Your task to perform on an android device: Go to CNN.com Image 0: 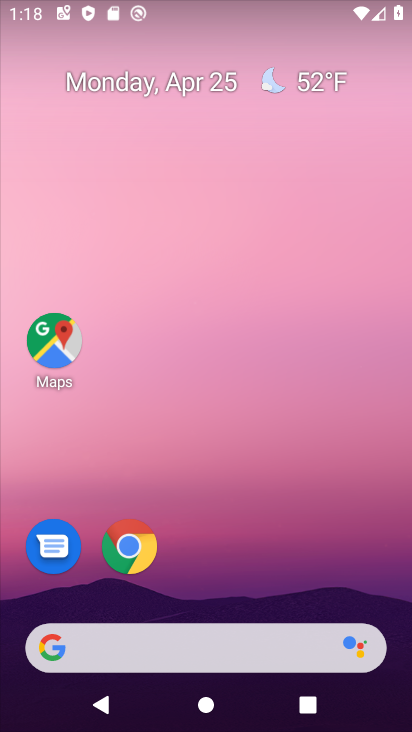
Step 0: click (129, 561)
Your task to perform on an android device: Go to CNN.com Image 1: 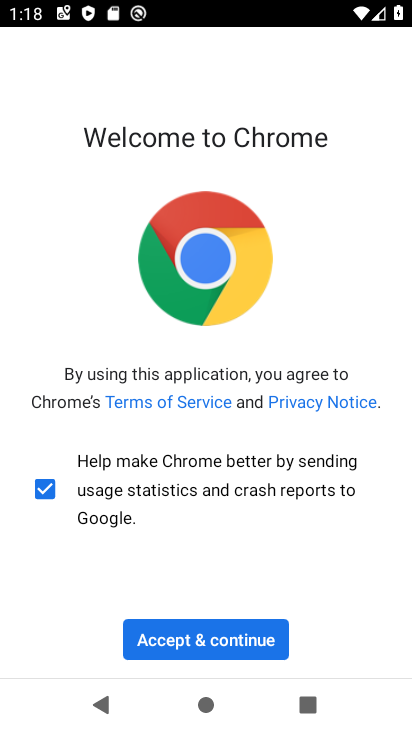
Step 1: click (222, 628)
Your task to perform on an android device: Go to CNN.com Image 2: 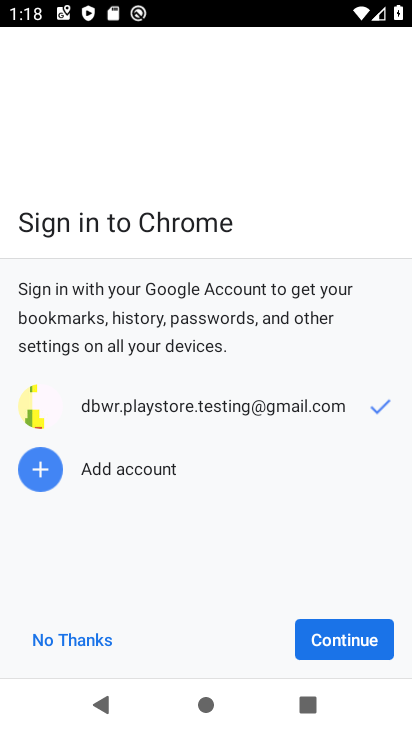
Step 2: click (341, 652)
Your task to perform on an android device: Go to CNN.com Image 3: 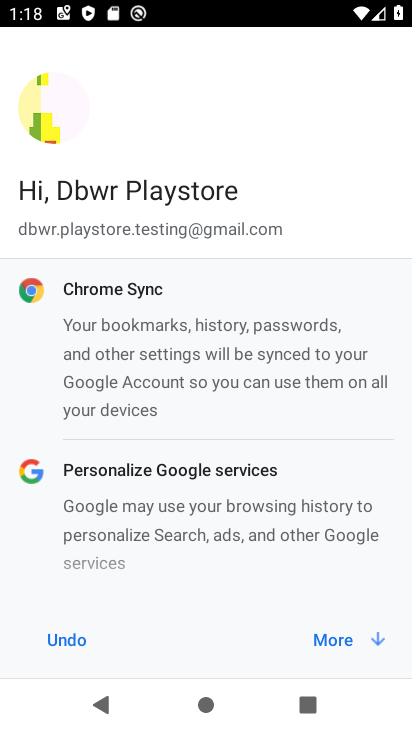
Step 3: click (341, 652)
Your task to perform on an android device: Go to CNN.com Image 4: 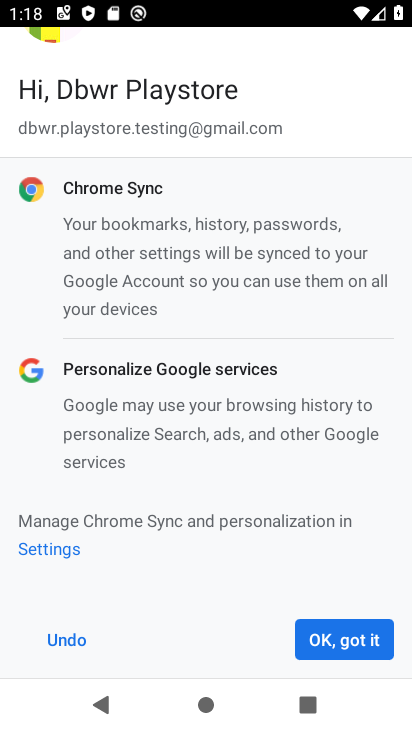
Step 4: click (341, 652)
Your task to perform on an android device: Go to CNN.com Image 5: 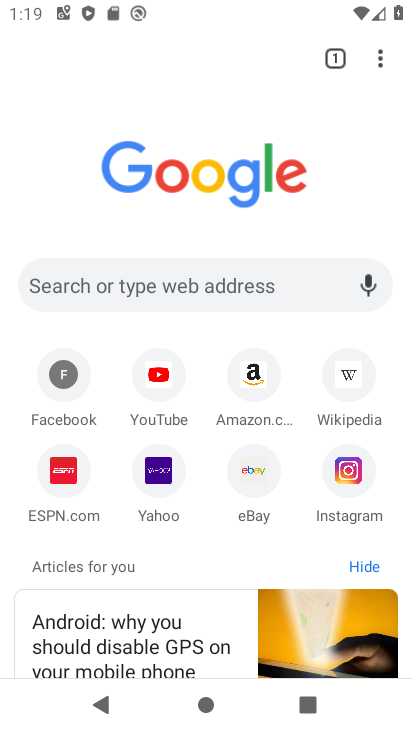
Step 5: click (228, 285)
Your task to perform on an android device: Go to CNN.com Image 6: 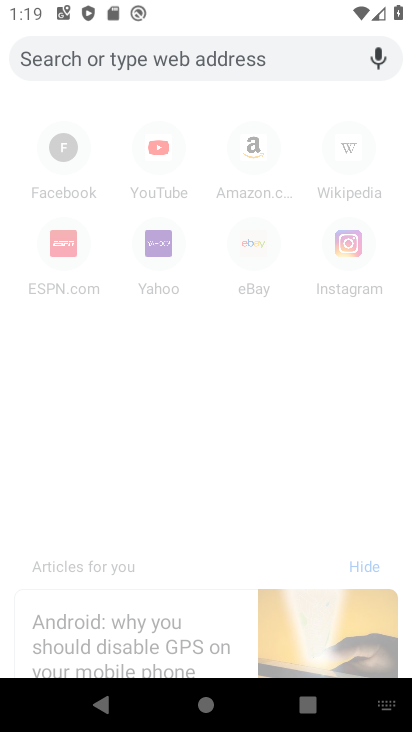
Step 6: type "cnn.com"
Your task to perform on an android device: Go to CNN.com Image 7: 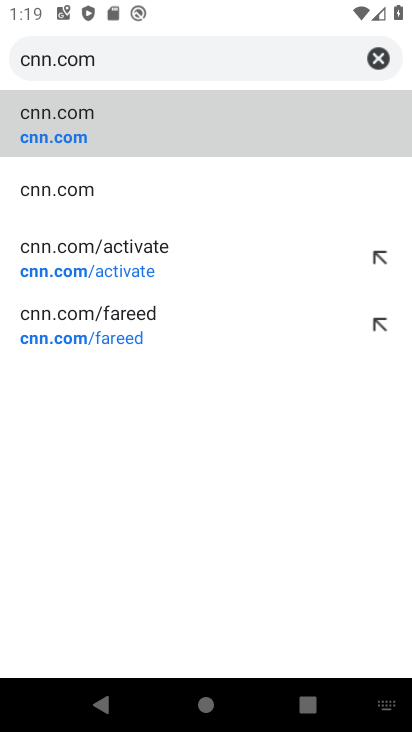
Step 7: click (116, 110)
Your task to perform on an android device: Go to CNN.com Image 8: 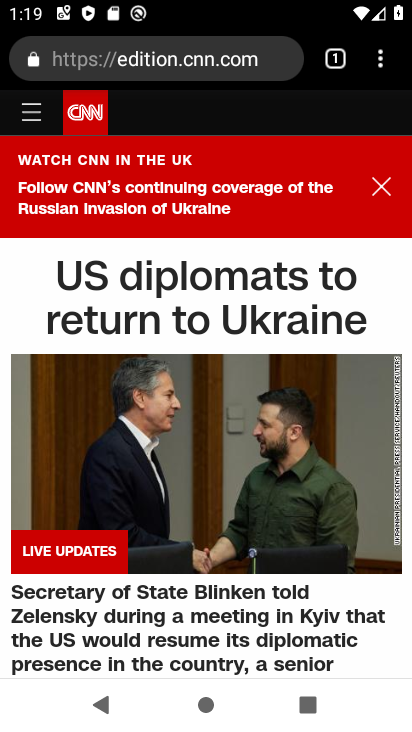
Step 8: task complete